Your task to perform on an android device: create a new album in the google photos Image 0: 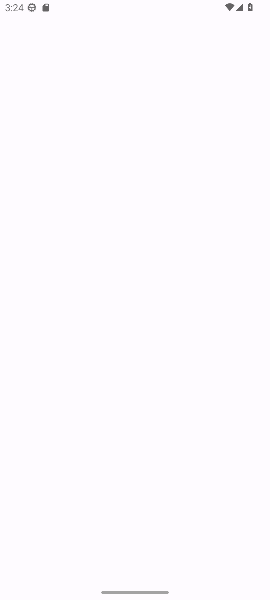
Step 0: click (171, 490)
Your task to perform on an android device: create a new album in the google photos Image 1: 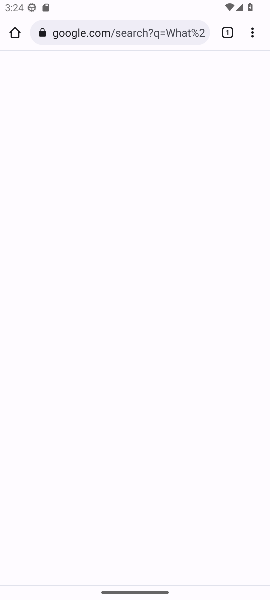
Step 1: click (73, 36)
Your task to perform on an android device: create a new album in the google photos Image 2: 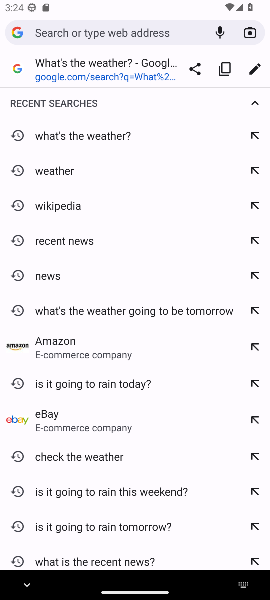
Step 2: press home button
Your task to perform on an android device: create a new album in the google photos Image 3: 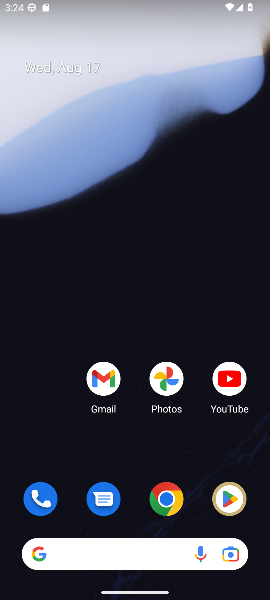
Step 3: drag from (188, 445) to (186, 72)
Your task to perform on an android device: create a new album in the google photos Image 4: 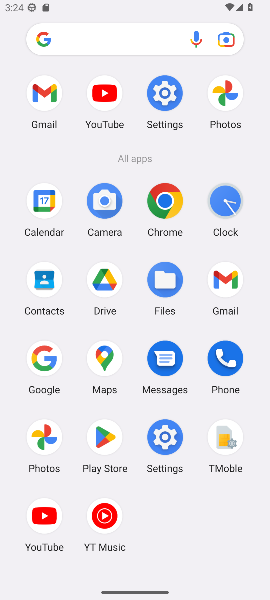
Step 4: click (49, 436)
Your task to perform on an android device: create a new album in the google photos Image 5: 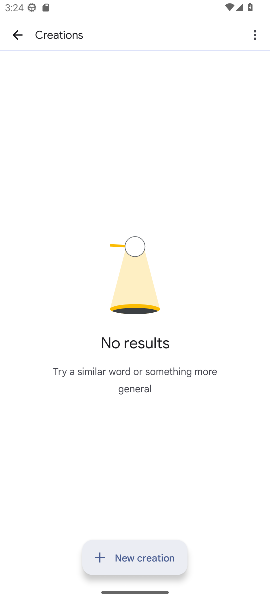
Step 5: click (16, 34)
Your task to perform on an android device: create a new album in the google photos Image 6: 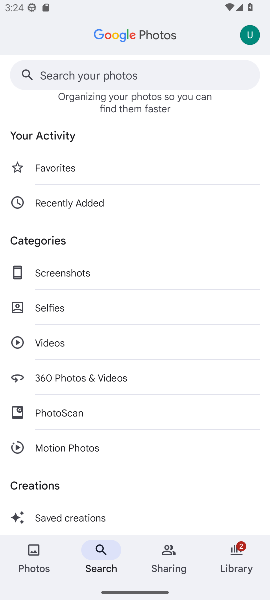
Step 6: click (36, 558)
Your task to perform on an android device: create a new album in the google photos Image 7: 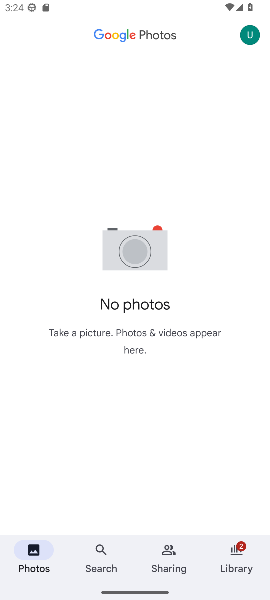
Step 7: task complete